Your task to perform on an android device: check google app version Image 0: 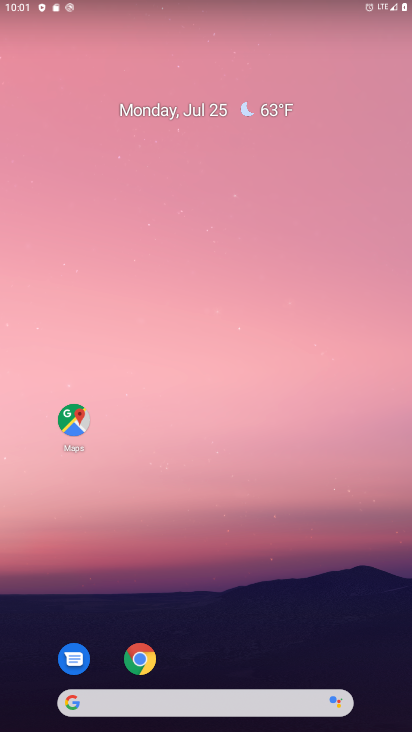
Step 0: drag from (208, 728) to (194, 160)
Your task to perform on an android device: check google app version Image 1: 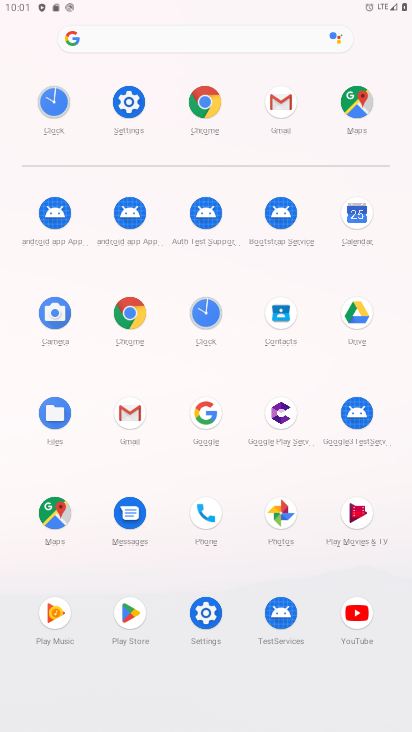
Step 1: click (205, 417)
Your task to perform on an android device: check google app version Image 2: 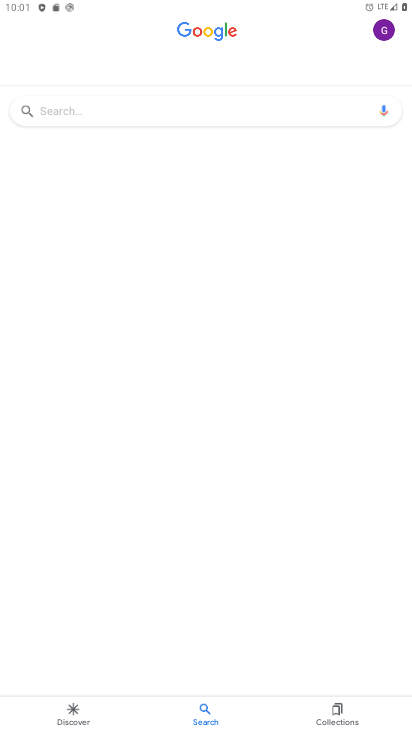
Step 2: click (389, 25)
Your task to perform on an android device: check google app version Image 3: 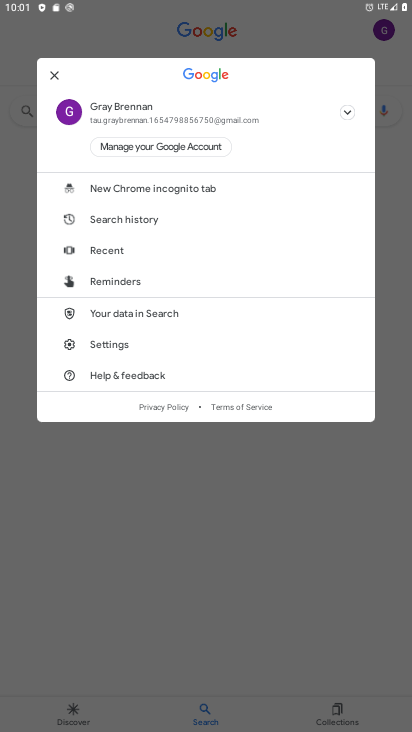
Step 3: click (94, 342)
Your task to perform on an android device: check google app version Image 4: 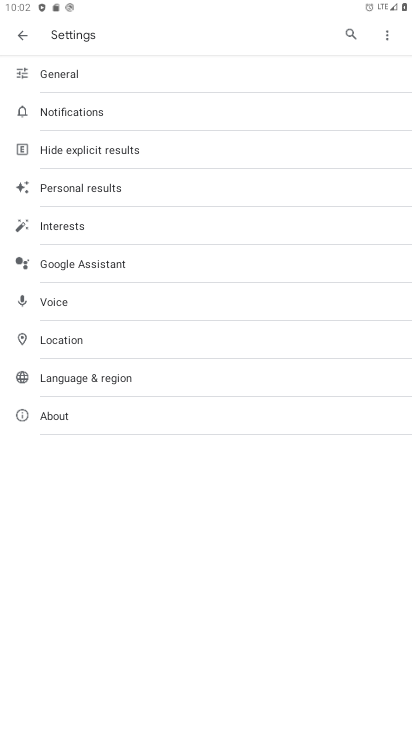
Step 4: click (56, 414)
Your task to perform on an android device: check google app version Image 5: 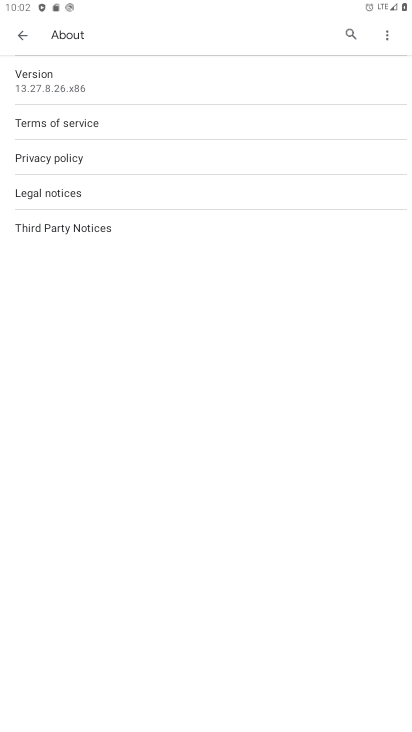
Step 5: task complete